Your task to perform on an android device: toggle improve location accuracy Image 0: 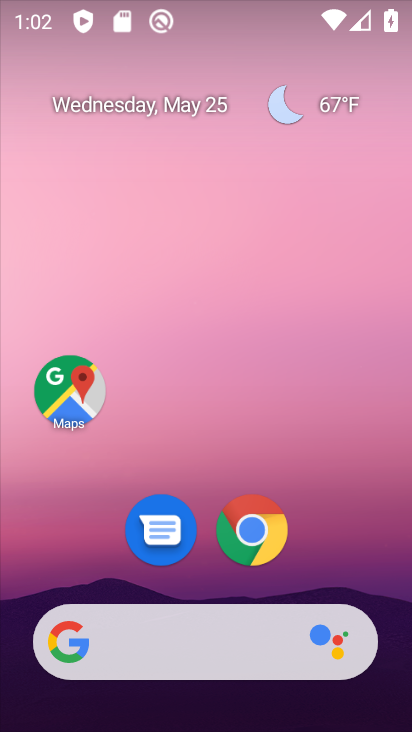
Step 0: drag from (339, 561) to (268, 199)
Your task to perform on an android device: toggle improve location accuracy Image 1: 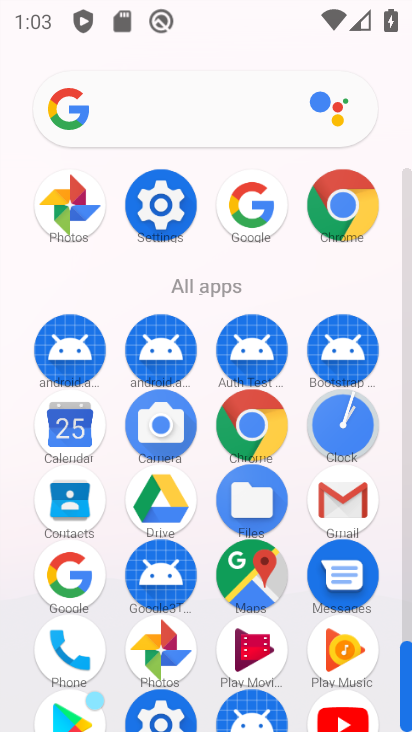
Step 1: click (160, 206)
Your task to perform on an android device: toggle improve location accuracy Image 2: 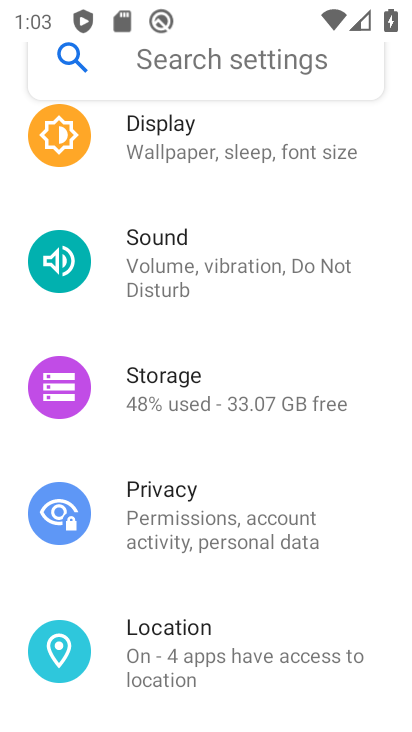
Step 2: drag from (216, 586) to (245, 507)
Your task to perform on an android device: toggle improve location accuracy Image 3: 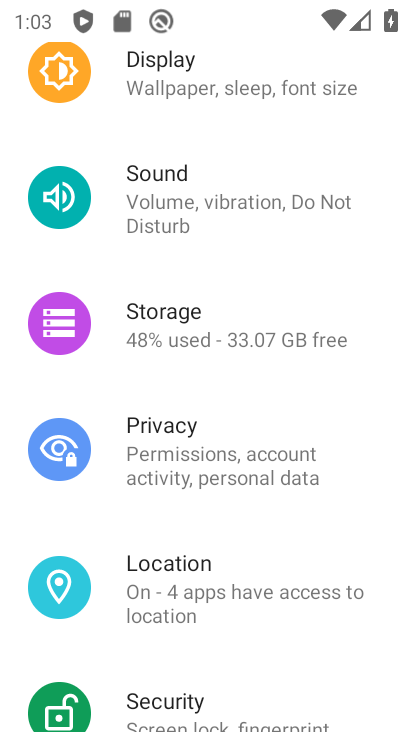
Step 3: click (194, 587)
Your task to perform on an android device: toggle improve location accuracy Image 4: 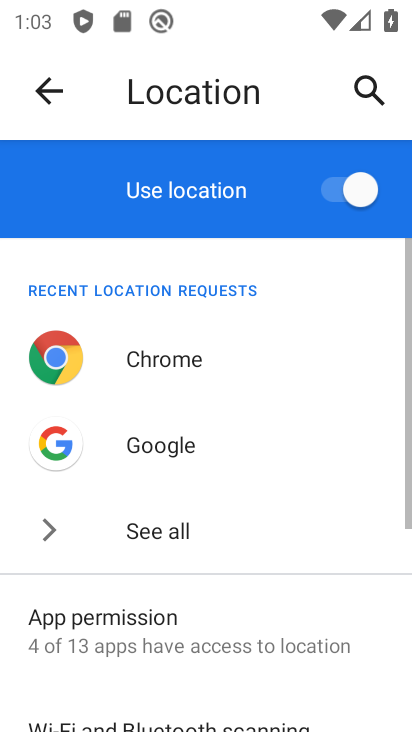
Step 4: drag from (203, 684) to (277, 550)
Your task to perform on an android device: toggle improve location accuracy Image 5: 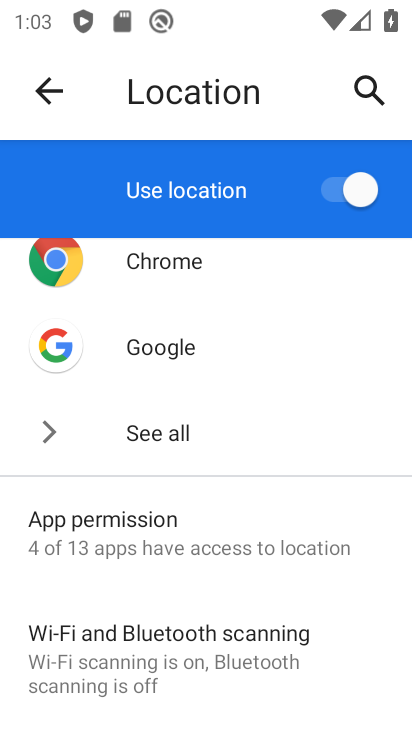
Step 5: drag from (218, 704) to (275, 553)
Your task to perform on an android device: toggle improve location accuracy Image 6: 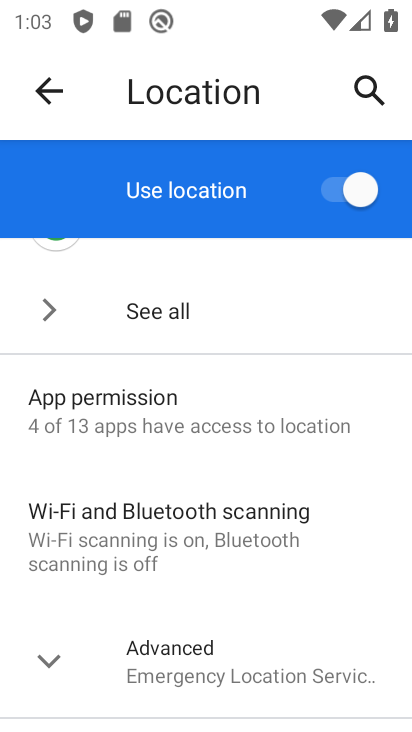
Step 6: drag from (211, 587) to (245, 421)
Your task to perform on an android device: toggle improve location accuracy Image 7: 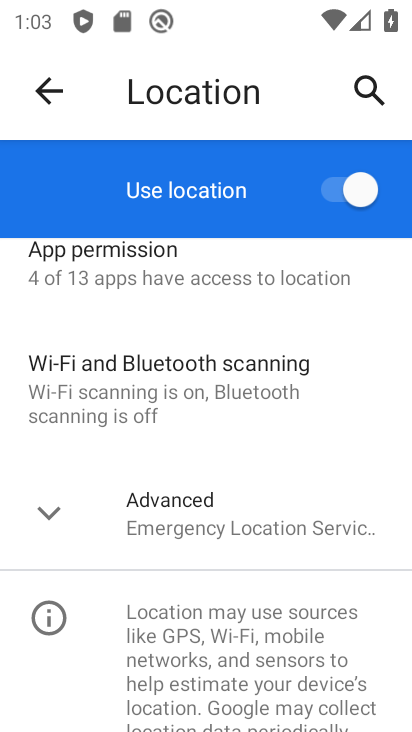
Step 7: click (243, 527)
Your task to perform on an android device: toggle improve location accuracy Image 8: 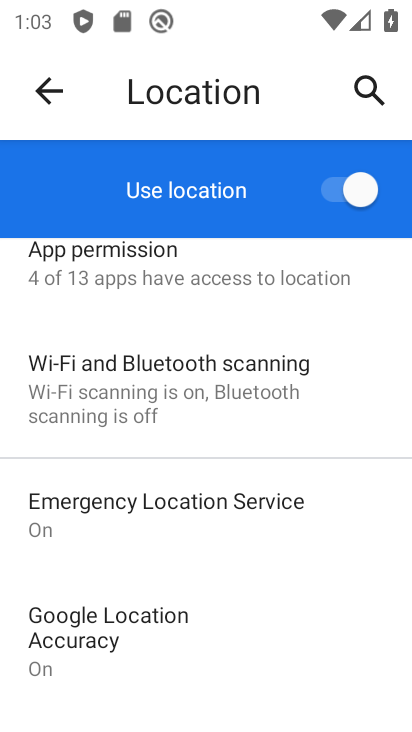
Step 8: drag from (230, 619) to (291, 507)
Your task to perform on an android device: toggle improve location accuracy Image 9: 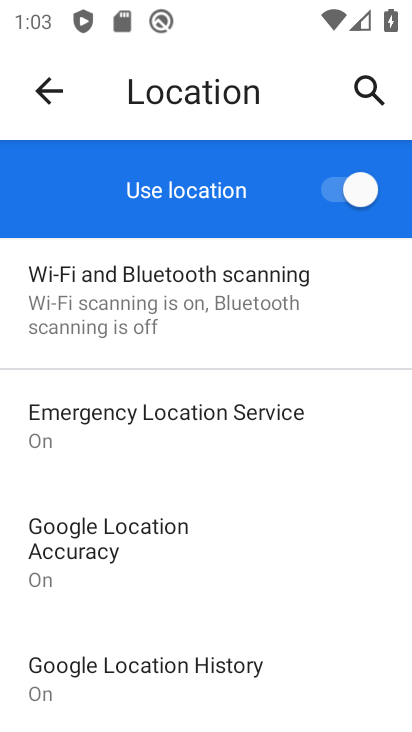
Step 9: click (124, 541)
Your task to perform on an android device: toggle improve location accuracy Image 10: 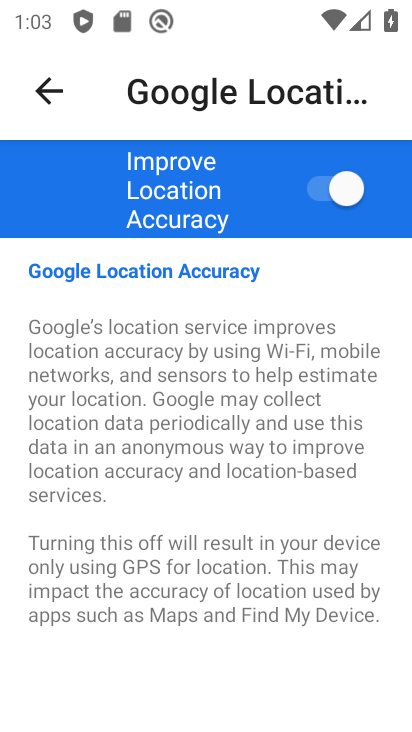
Step 10: click (329, 189)
Your task to perform on an android device: toggle improve location accuracy Image 11: 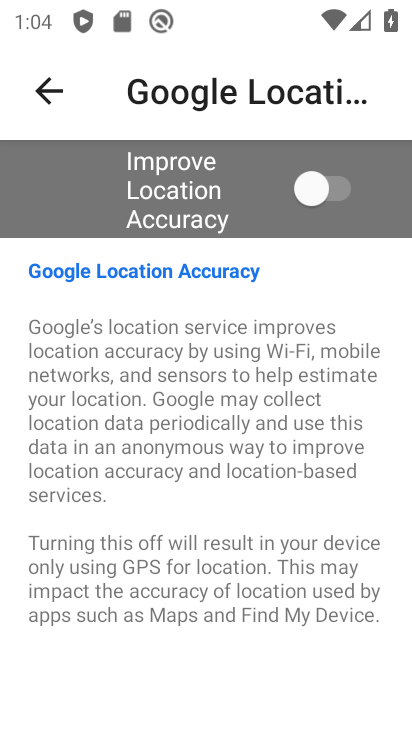
Step 11: task complete